Your task to perform on an android device: When is my next appointment? Image 0: 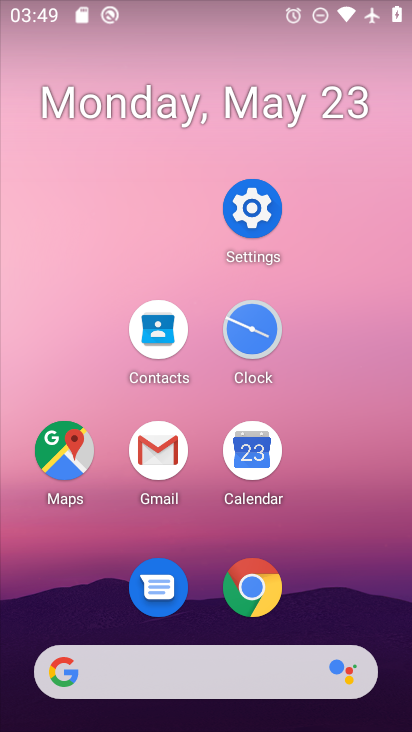
Step 0: click (275, 451)
Your task to perform on an android device: When is my next appointment? Image 1: 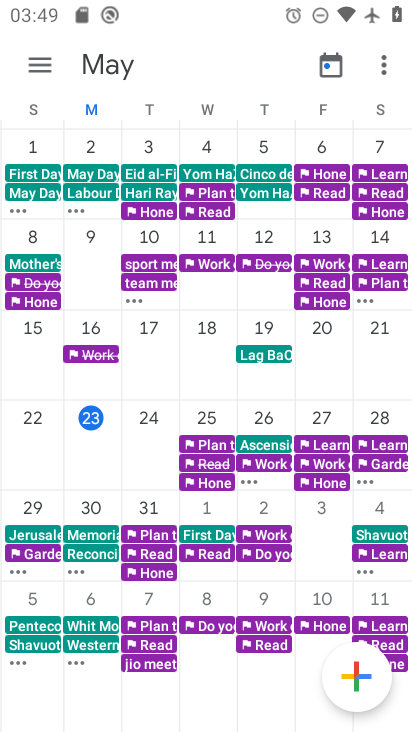
Step 1: task complete